Your task to perform on an android device: Go to Google maps Image 0: 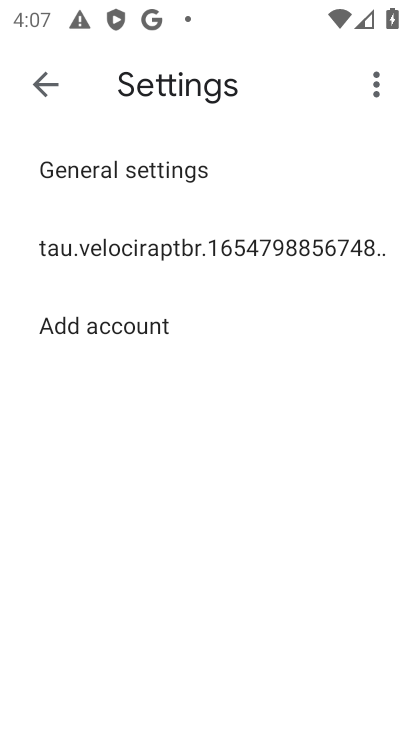
Step 0: drag from (118, 249) to (398, 184)
Your task to perform on an android device: Go to Google maps Image 1: 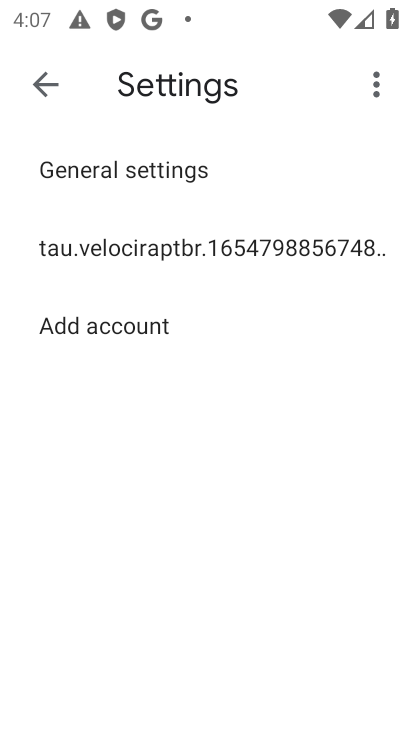
Step 1: press home button
Your task to perform on an android device: Go to Google maps Image 2: 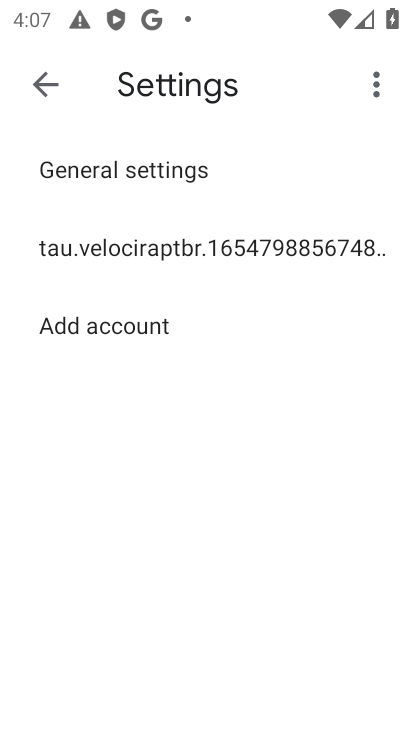
Step 2: drag from (398, 184) to (406, 228)
Your task to perform on an android device: Go to Google maps Image 3: 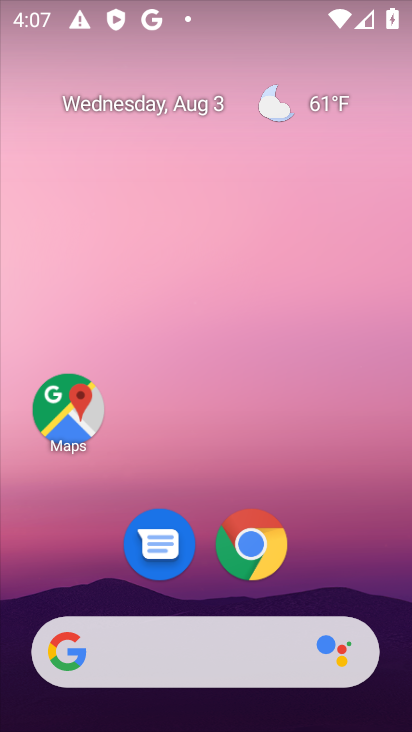
Step 3: click (64, 404)
Your task to perform on an android device: Go to Google maps Image 4: 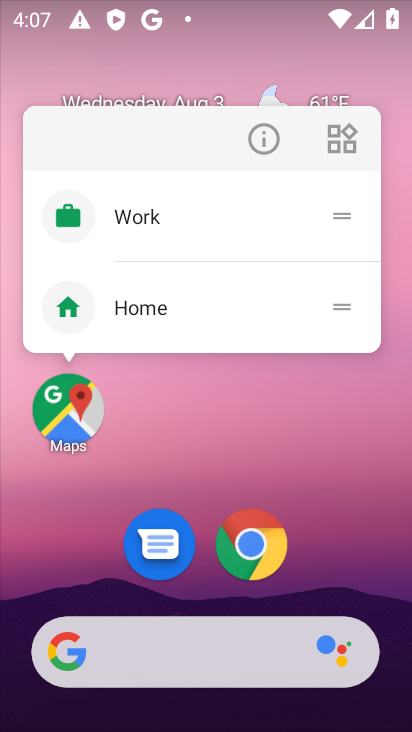
Step 4: click (69, 414)
Your task to perform on an android device: Go to Google maps Image 5: 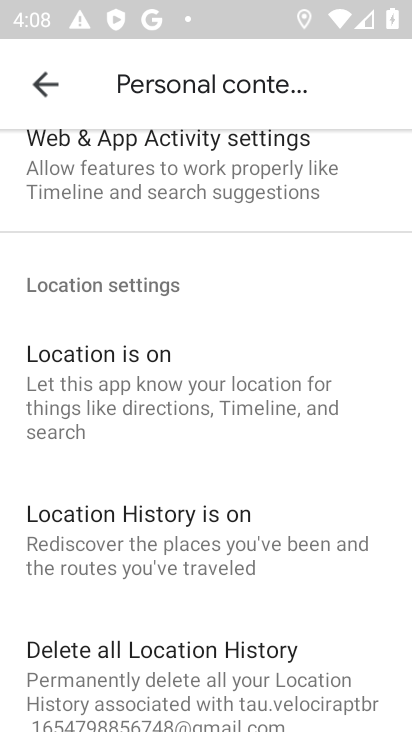
Step 5: click (38, 85)
Your task to perform on an android device: Go to Google maps Image 6: 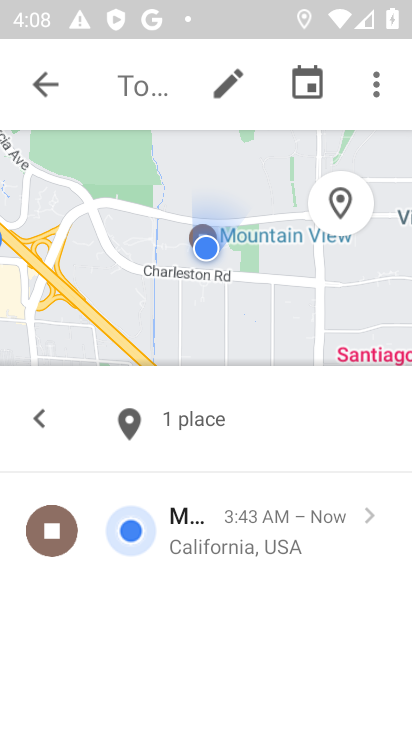
Step 6: click (45, 85)
Your task to perform on an android device: Go to Google maps Image 7: 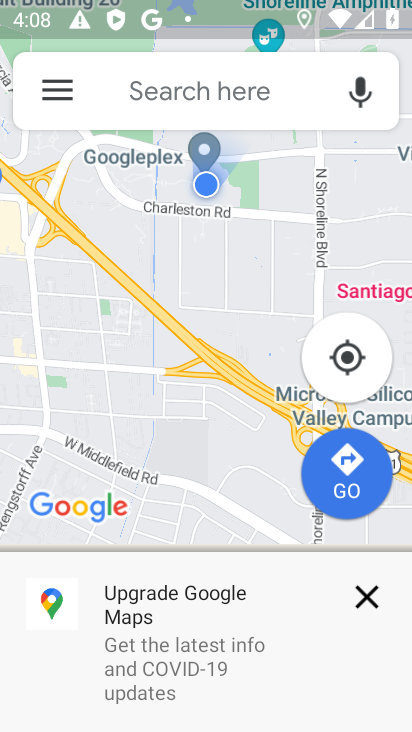
Step 7: task complete